Your task to perform on an android device: Add apple airpods to the cart on newegg Image 0: 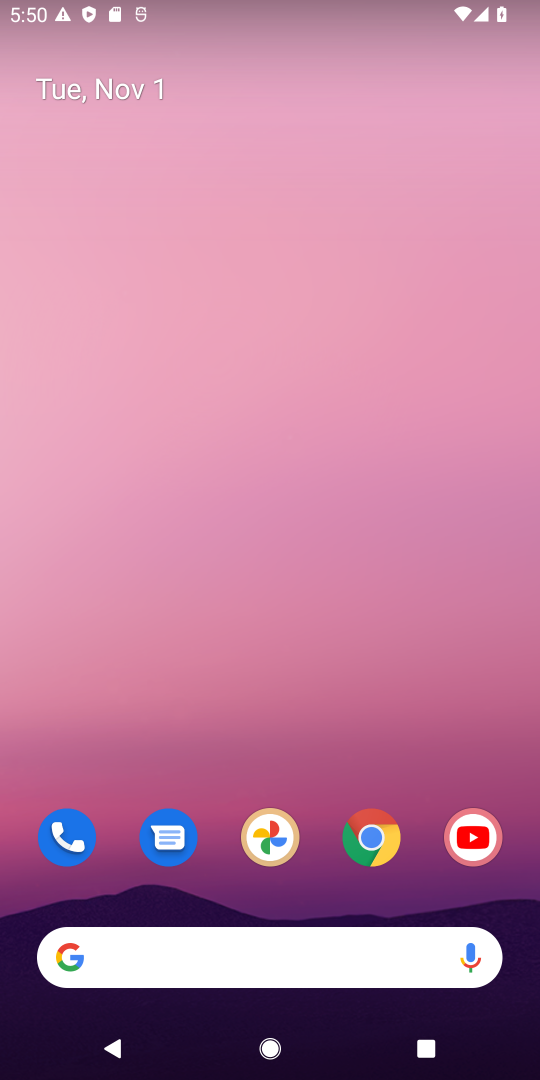
Step 0: drag from (345, 749) to (342, 86)
Your task to perform on an android device: Add apple airpods to the cart on newegg Image 1: 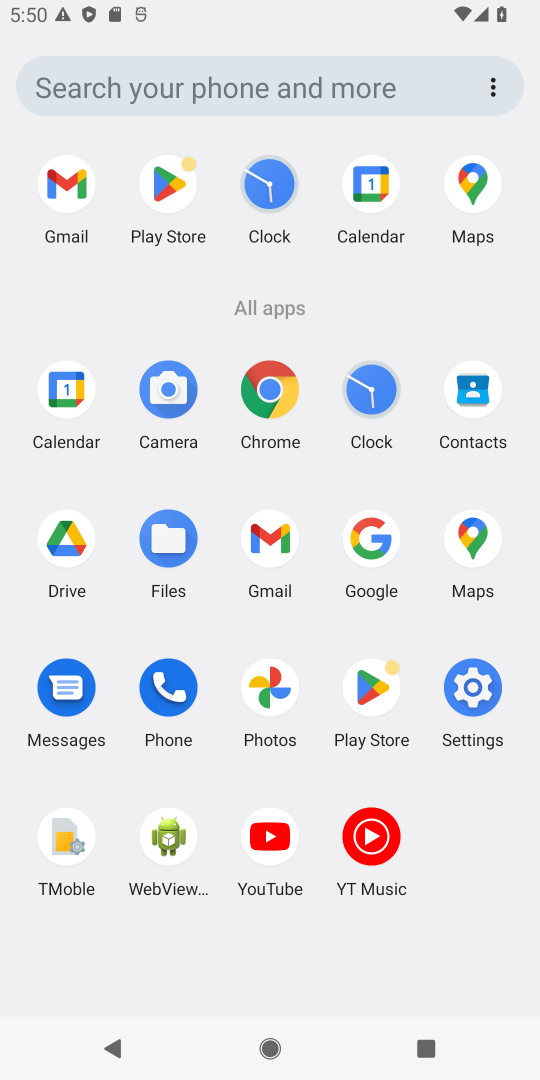
Step 1: click (280, 380)
Your task to perform on an android device: Add apple airpods to the cart on newegg Image 2: 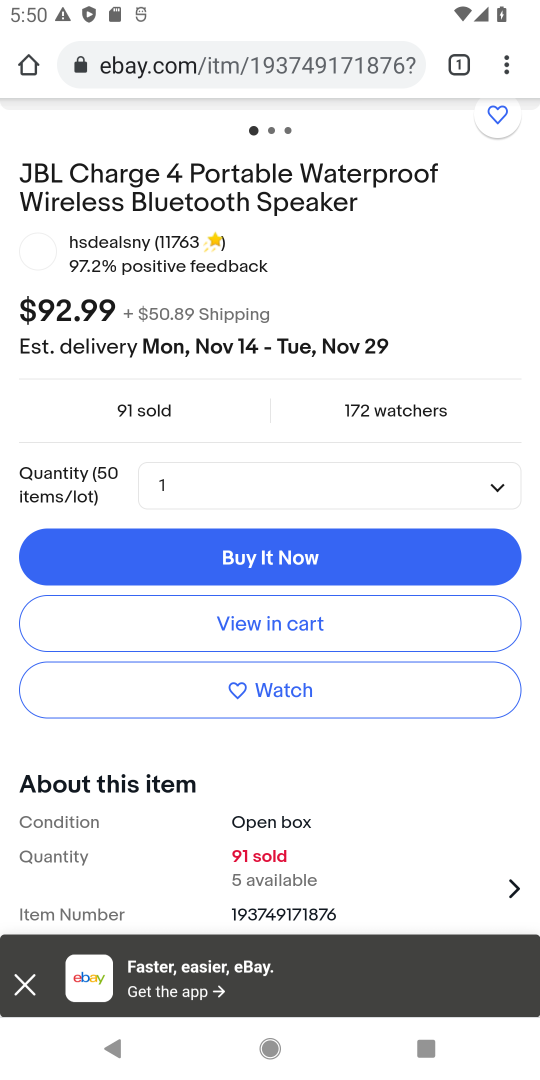
Step 2: click (213, 61)
Your task to perform on an android device: Add apple airpods to the cart on newegg Image 3: 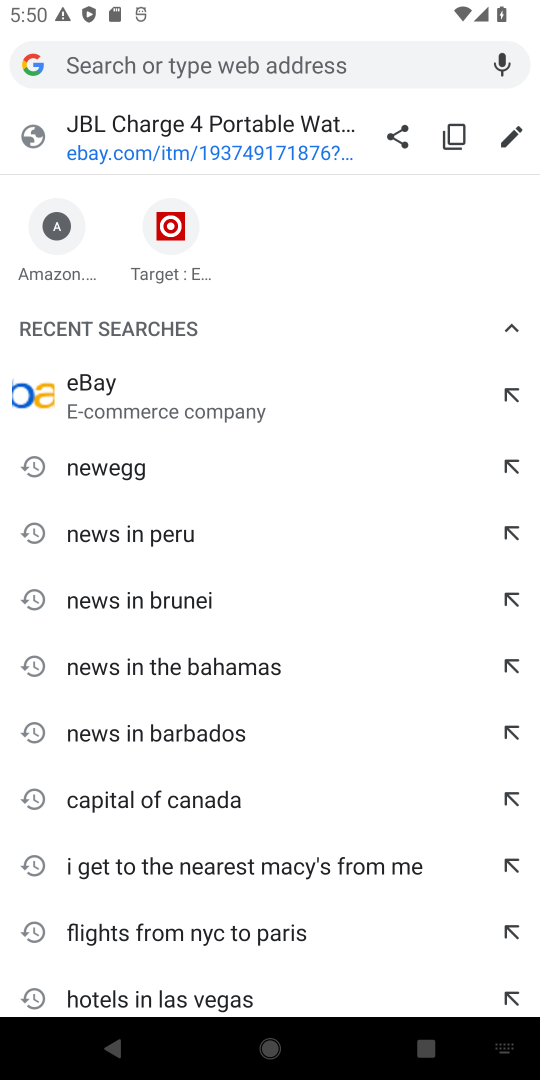
Step 3: type " newegg"
Your task to perform on an android device: Add apple airpods to the cart on newegg Image 4: 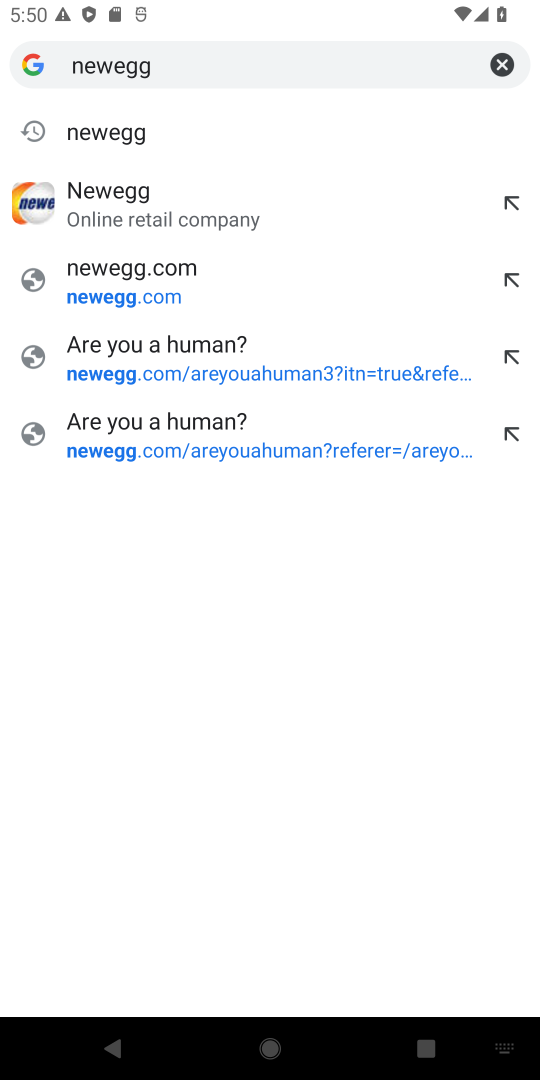
Step 4: click (102, 133)
Your task to perform on an android device: Add apple airpods to the cart on newegg Image 5: 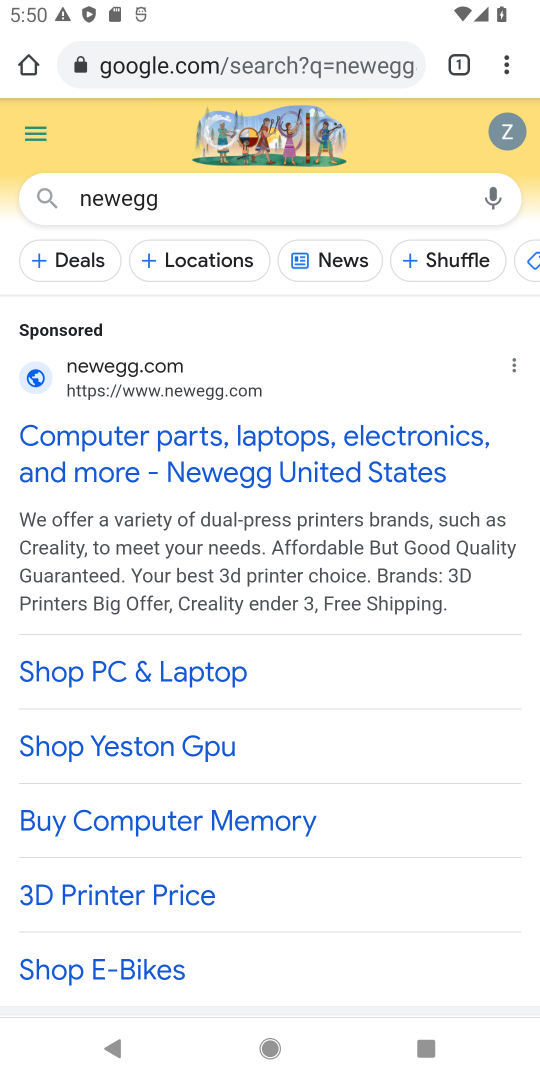
Step 5: click (126, 294)
Your task to perform on an android device: Add apple airpods to the cart on newegg Image 6: 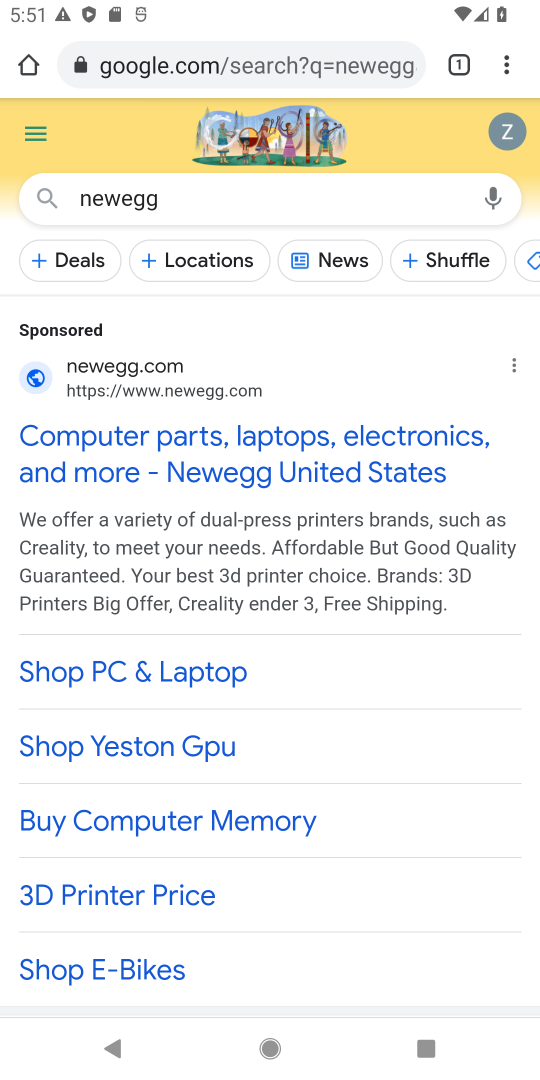
Step 6: click (395, 468)
Your task to perform on an android device: Add apple airpods to the cart on newegg Image 7: 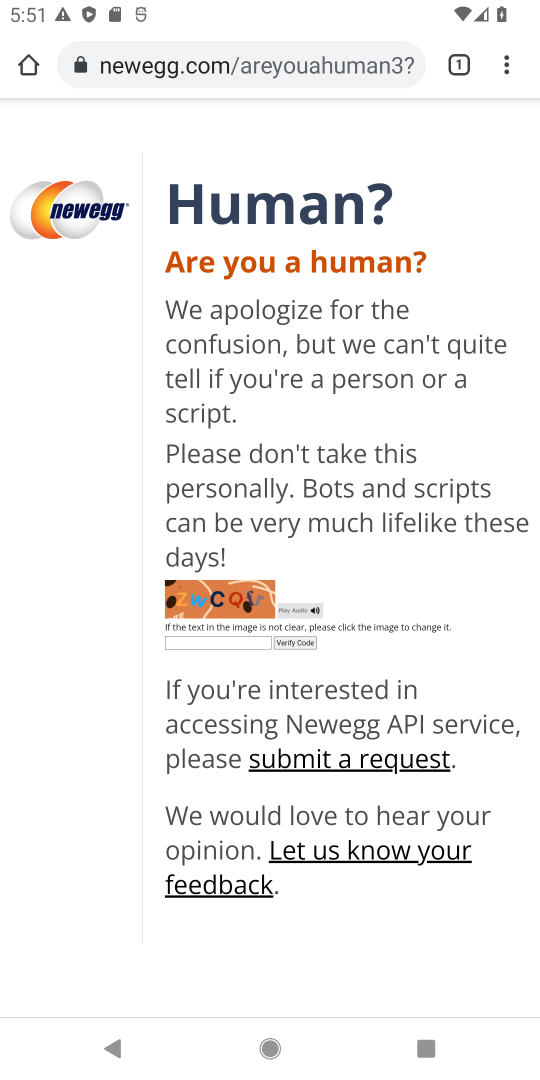
Step 7: drag from (354, 638) to (379, 452)
Your task to perform on an android device: Add apple airpods to the cart on newegg Image 8: 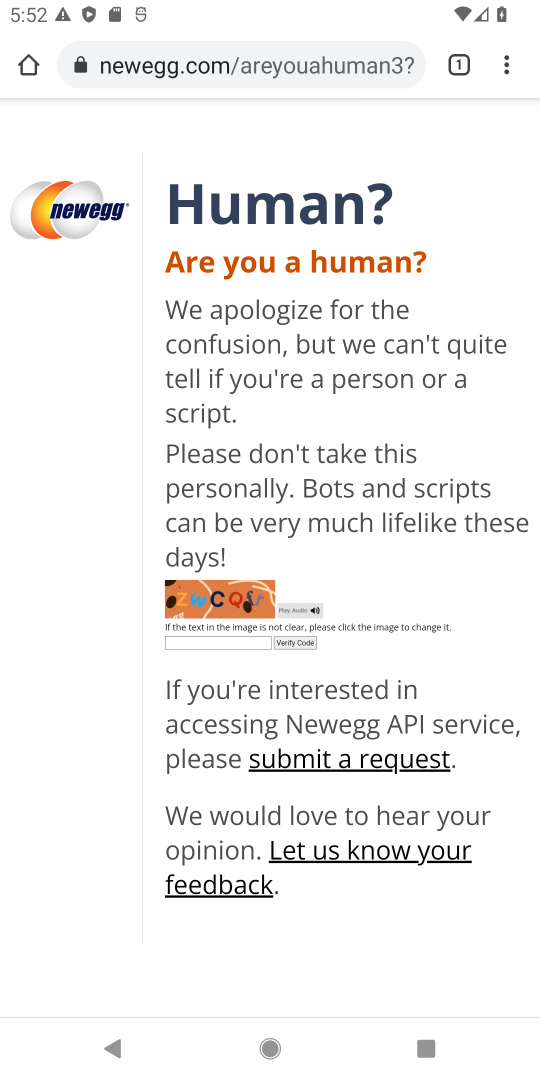
Step 8: click (354, 851)
Your task to perform on an android device: Add apple airpods to the cart on newegg Image 9: 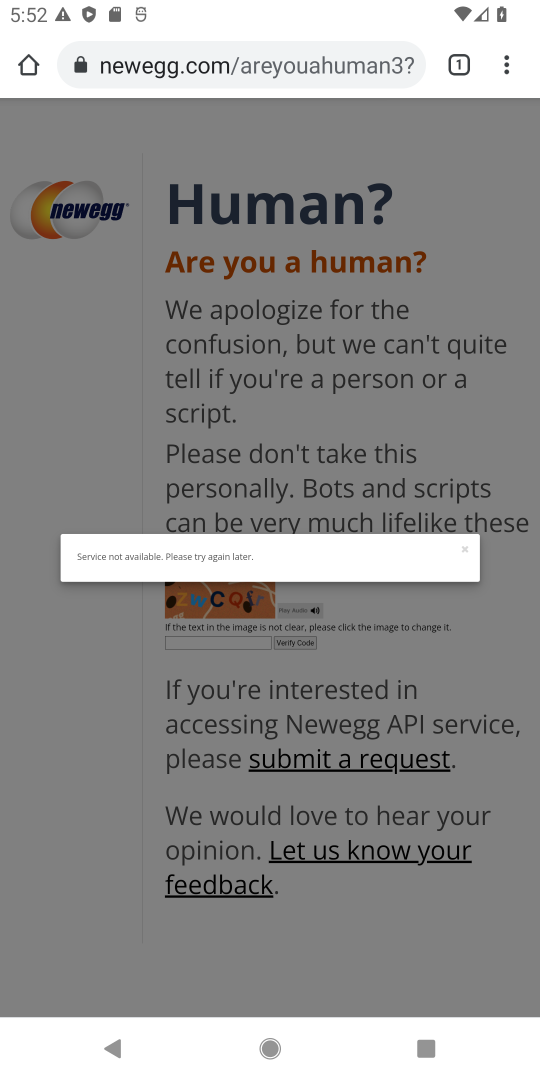
Step 9: click (94, 550)
Your task to perform on an android device: Add apple airpods to the cart on newegg Image 10: 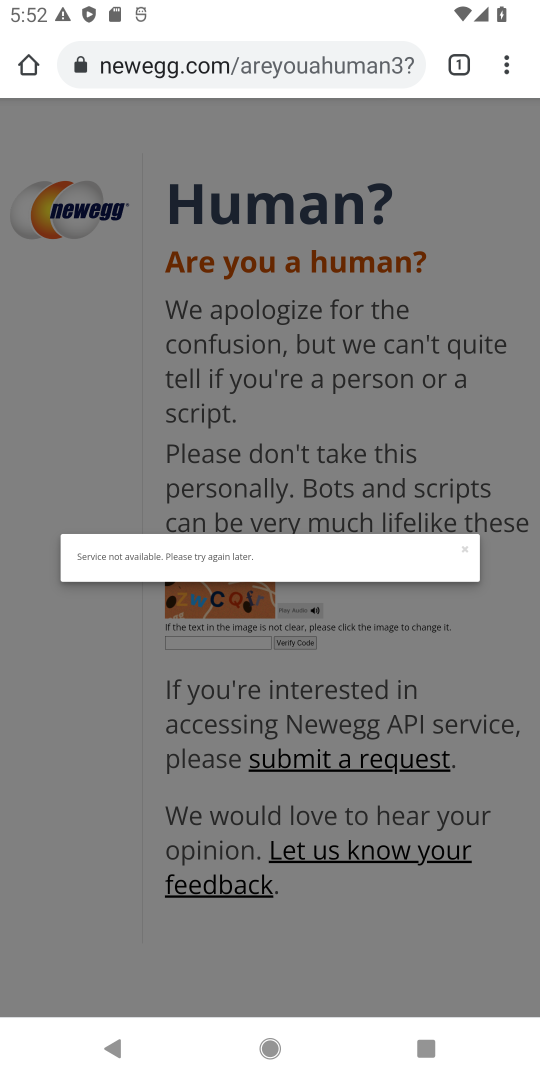
Step 10: click (218, 554)
Your task to perform on an android device: Add apple airpods to the cart on newegg Image 11: 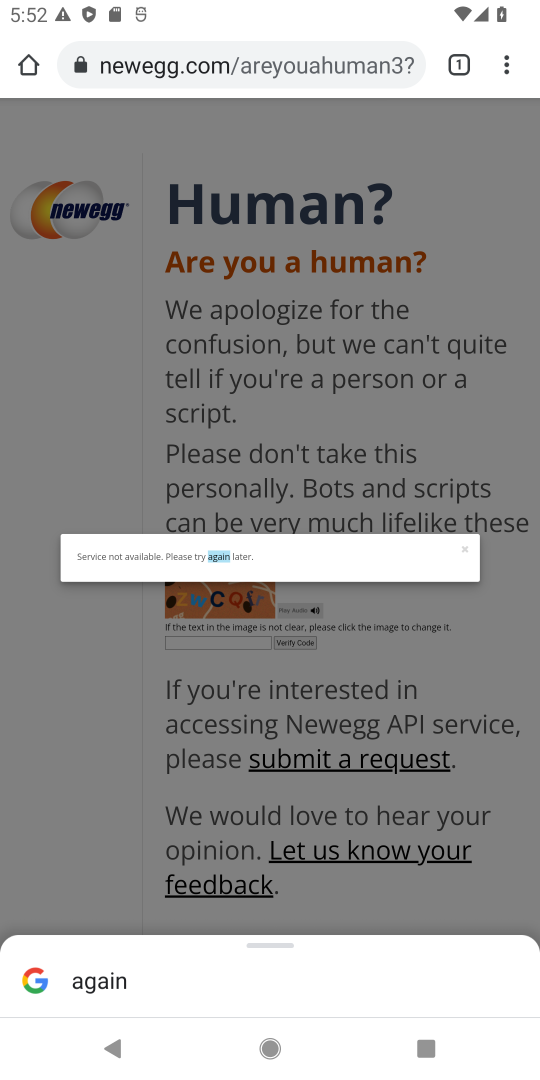
Step 11: task complete